Your task to perform on an android device: Turn on the flashlight Image 0: 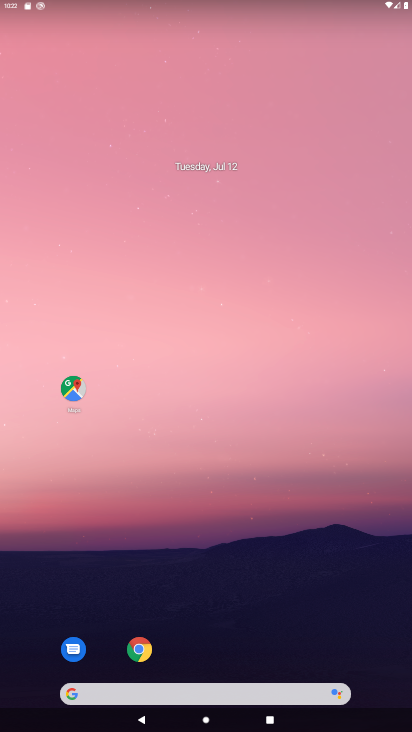
Step 0: drag from (282, 577) to (351, 85)
Your task to perform on an android device: Turn on the flashlight Image 1: 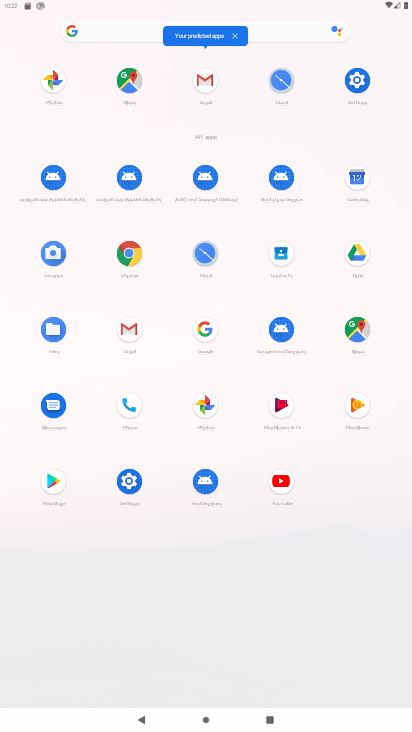
Step 1: click (352, 89)
Your task to perform on an android device: Turn on the flashlight Image 2: 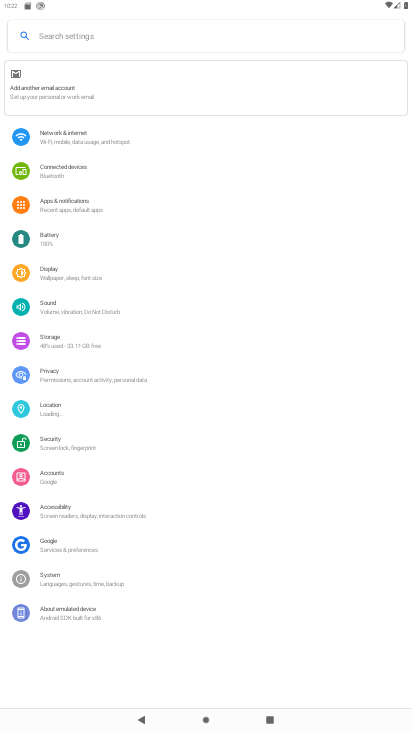
Step 2: task complete